Your task to perform on an android device: toggle notifications settings in the gmail app Image 0: 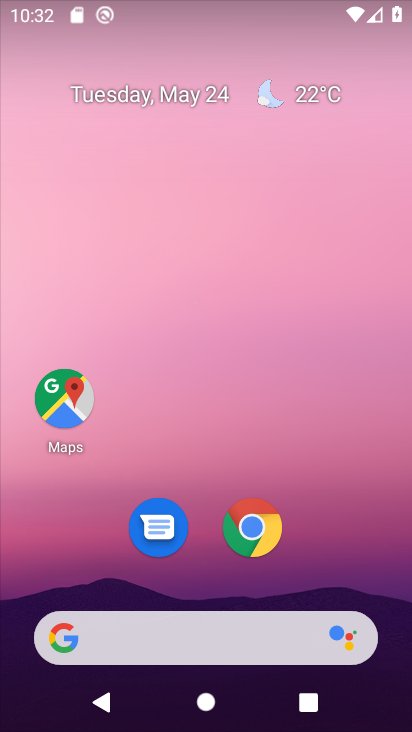
Step 0: drag from (185, 605) to (299, 160)
Your task to perform on an android device: toggle notifications settings in the gmail app Image 1: 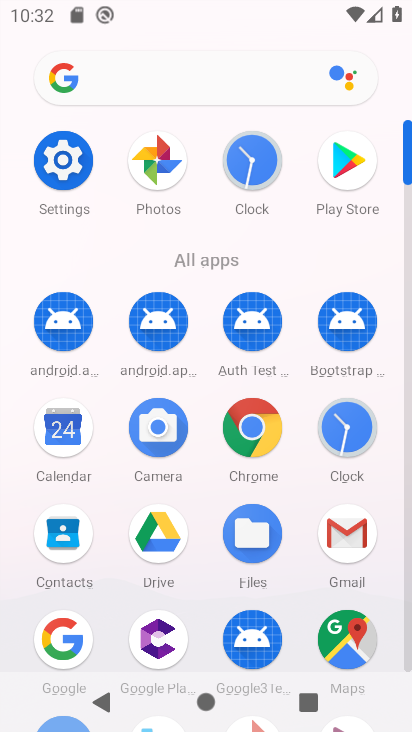
Step 1: click (353, 544)
Your task to perform on an android device: toggle notifications settings in the gmail app Image 2: 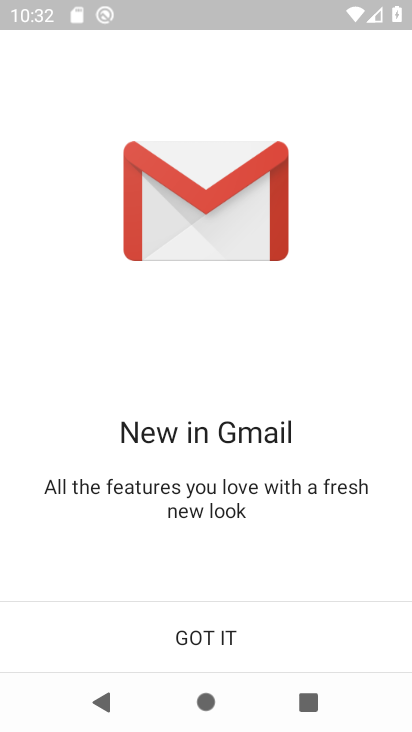
Step 2: click (225, 633)
Your task to perform on an android device: toggle notifications settings in the gmail app Image 3: 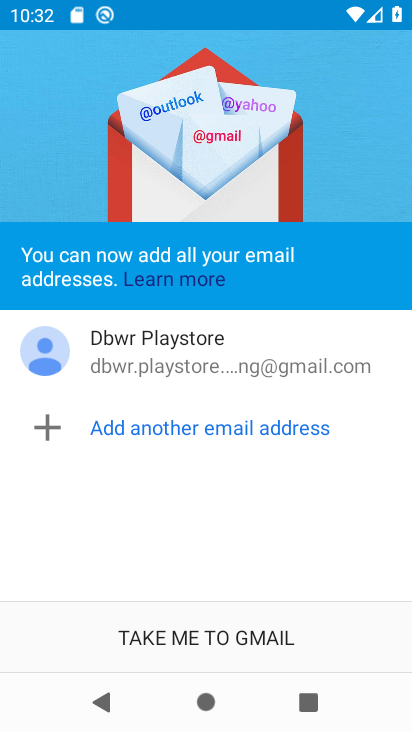
Step 3: click (225, 633)
Your task to perform on an android device: toggle notifications settings in the gmail app Image 4: 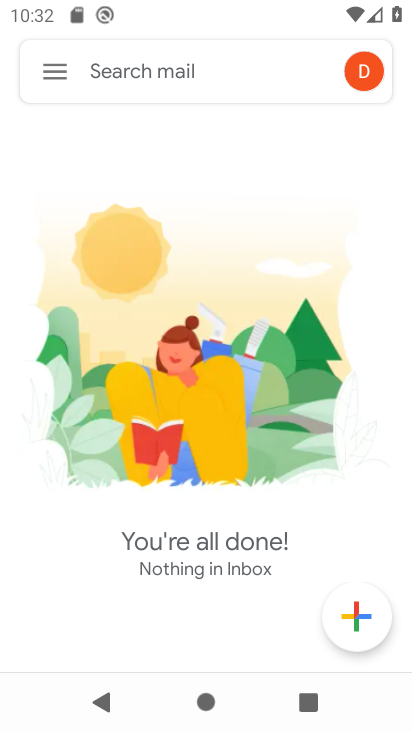
Step 4: click (51, 67)
Your task to perform on an android device: toggle notifications settings in the gmail app Image 5: 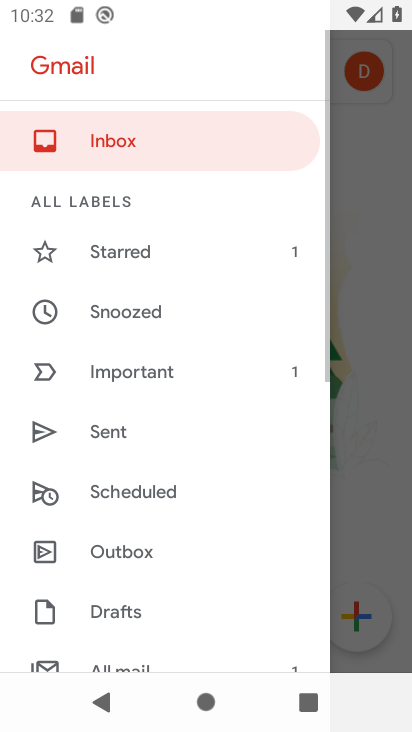
Step 5: drag from (202, 638) to (257, 246)
Your task to perform on an android device: toggle notifications settings in the gmail app Image 6: 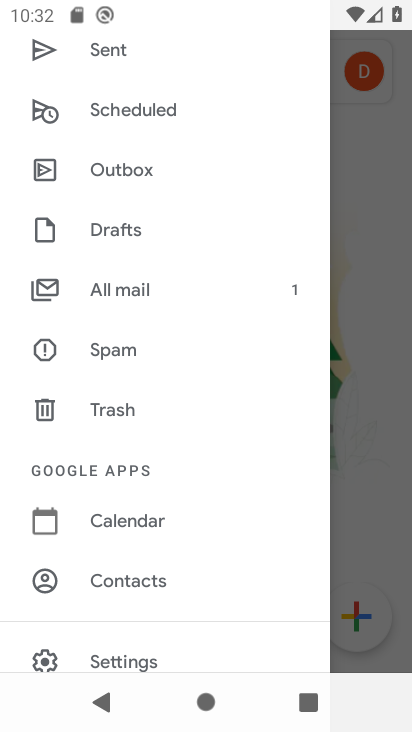
Step 6: drag from (210, 603) to (235, 330)
Your task to perform on an android device: toggle notifications settings in the gmail app Image 7: 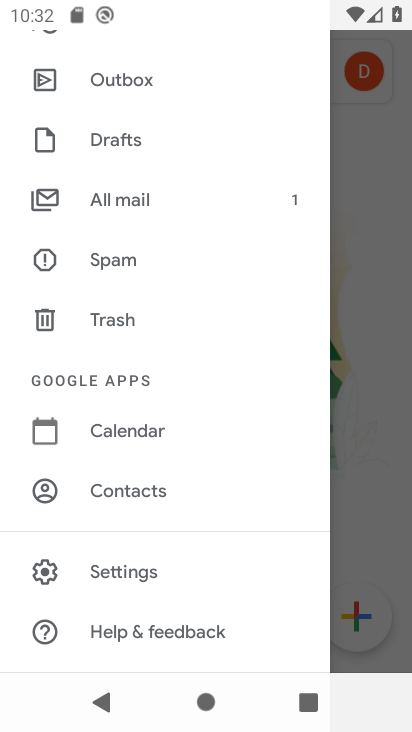
Step 7: click (128, 571)
Your task to perform on an android device: toggle notifications settings in the gmail app Image 8: 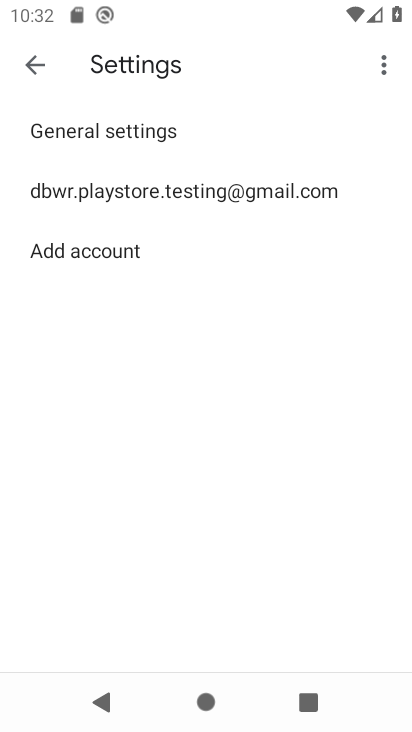
Step 8: click (179, 192)
Your task to perform on an android device: toggle notifications settings in the gmail app Image 9: 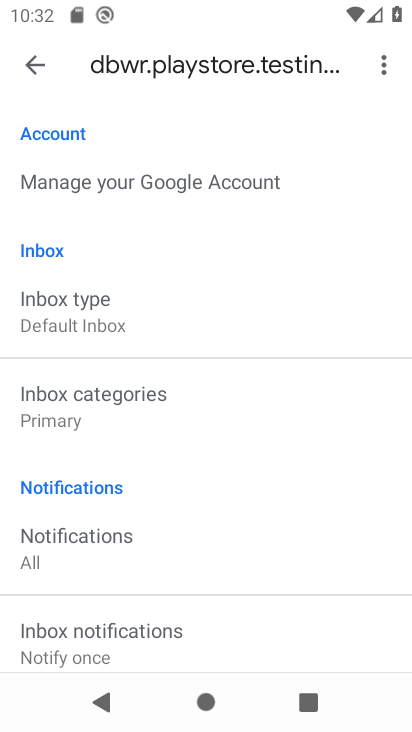
Step 9: click (81, 567)
Your task to perform on an android device: toggle notifications settings in the gmail app Image 10: 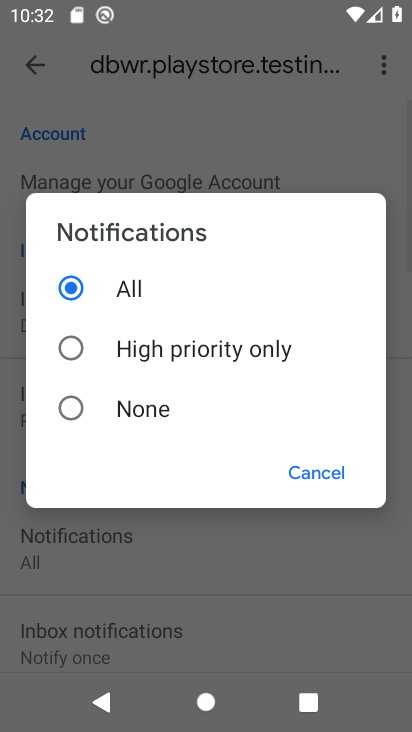
Step 10: click (68, 413)
Your task to perform on an android device: toggle notifications settings in the gmail app Image 11: 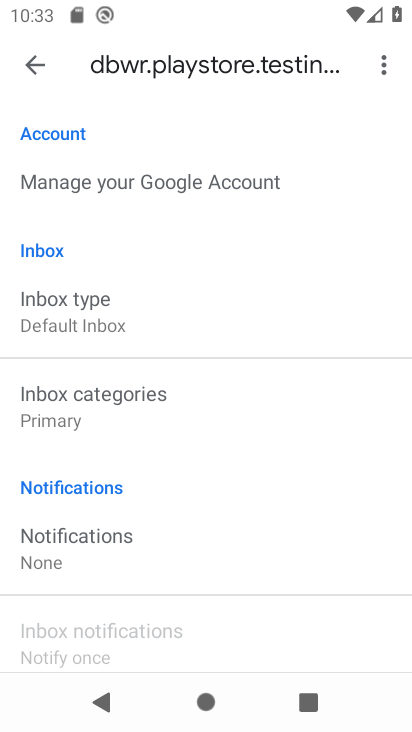
Step 11: task complete